Your task to perform on an android device: Go to location settings Image 0: 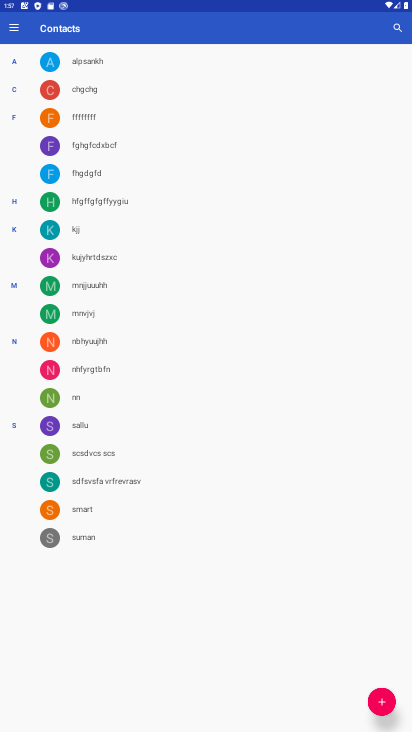
Step 0: press home button
Your task to perform on an android device: Go to location settings Image 1: 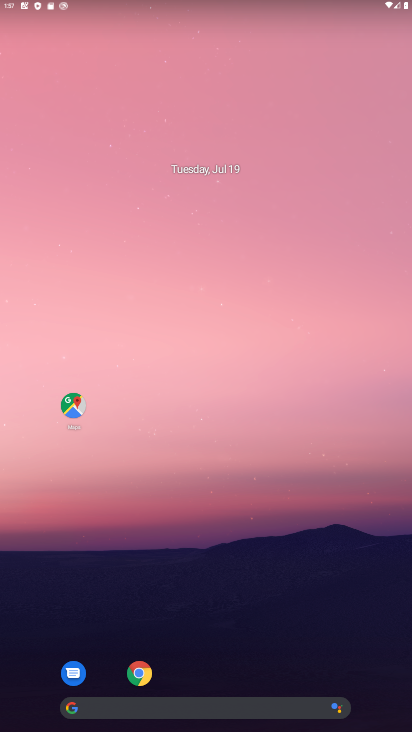
Step 1: drag from (167, 699) to (258, 71)
Your task to perform on an android device: Go to location settings Image 2: 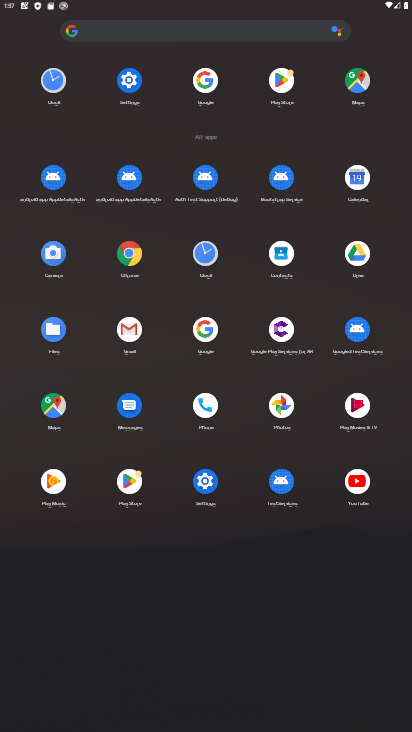
Step 2: click (130, 82)
Your task to perform on an android device: Go to location settings Image 3: 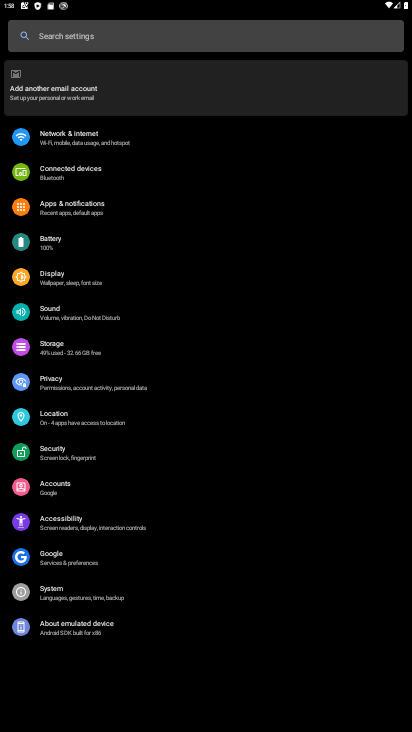
Step 3: click (70, 421)
Your task to perform on an android device: Go to location settings Image 4: 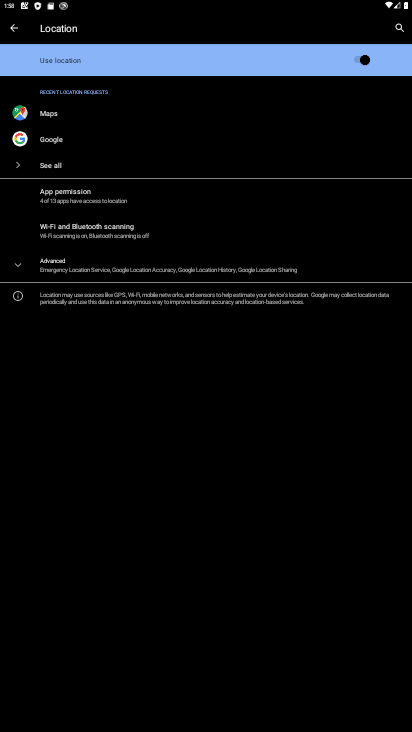
Step 4: task complete